Your task to perform on an android device: Open the phone app and click the voicemail tab. Image 0: 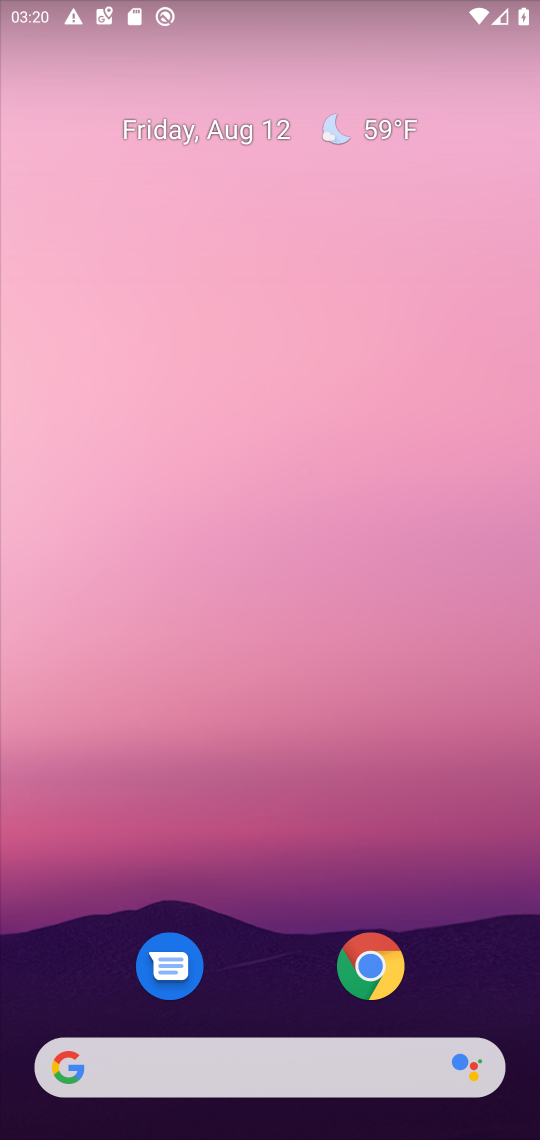
Step 0: drag from (265, 854) to (321, 214)
Your task to perform on an android device: Open the phone app and click the voicemail tab. Image 1: 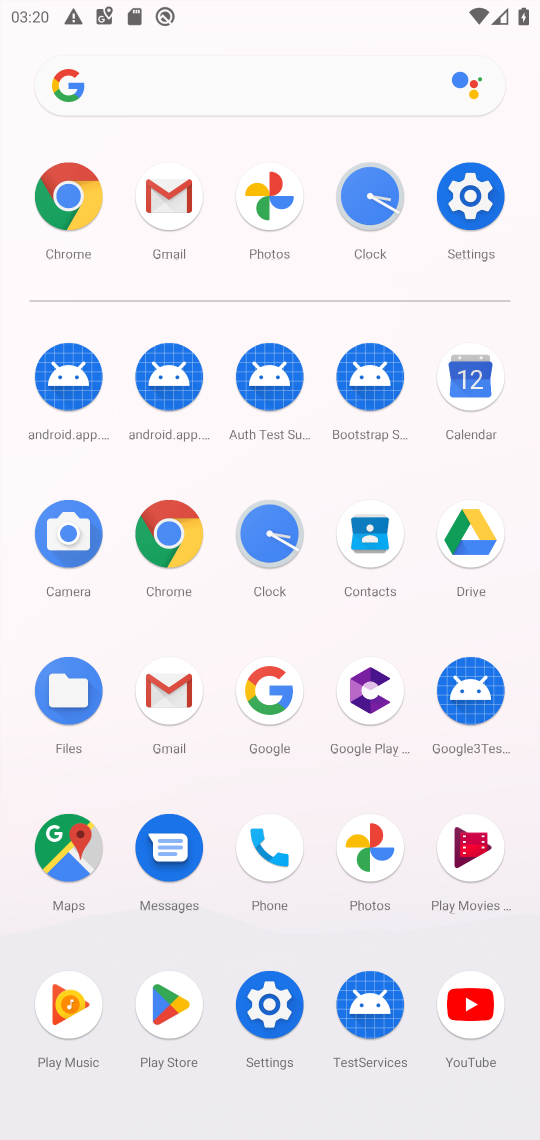
Step 1: click (269, 849)
Your task to perform on an android device: Open the phone app and click the voicemail tab. Image 2: 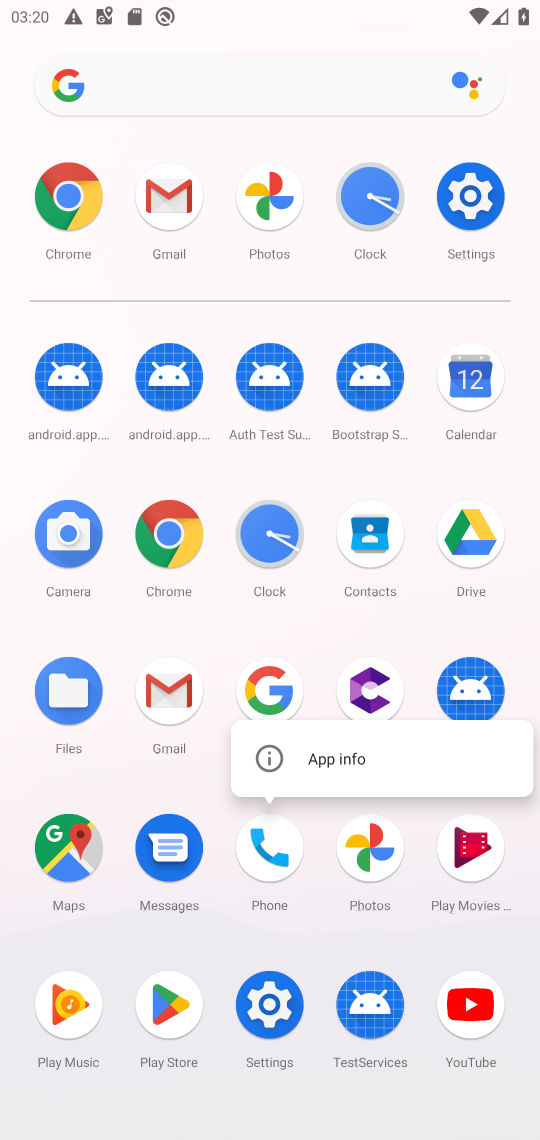
Step 2: click (210, 836)
Your task to perform on an android device: Open the phone app and click the voicemail tab. Image 3: 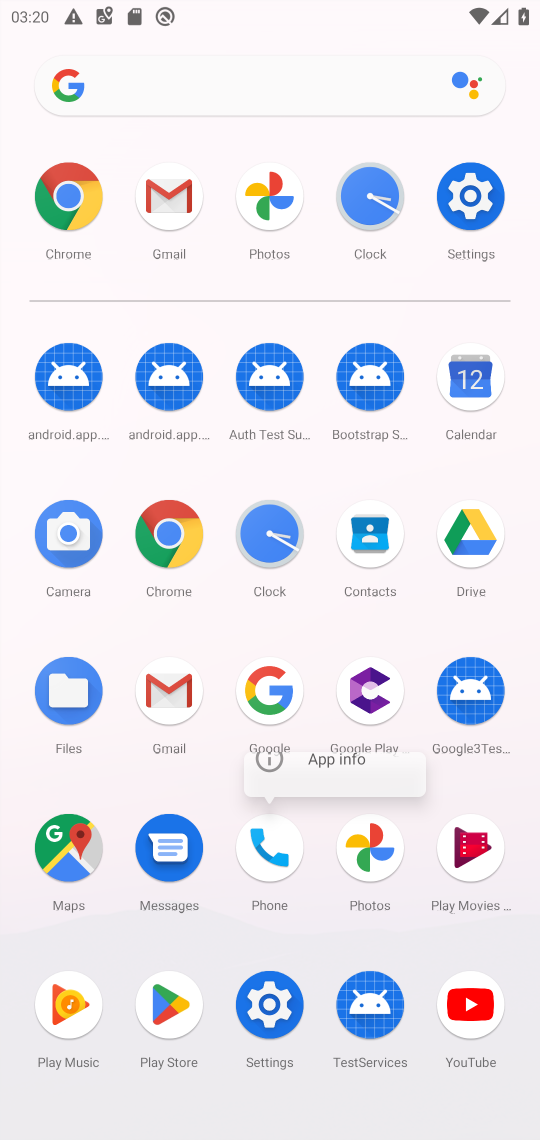
Step 3: click (264, 838)
Your task to perform on an android device: Open the phone app and click the voicemail tab. Image 4: 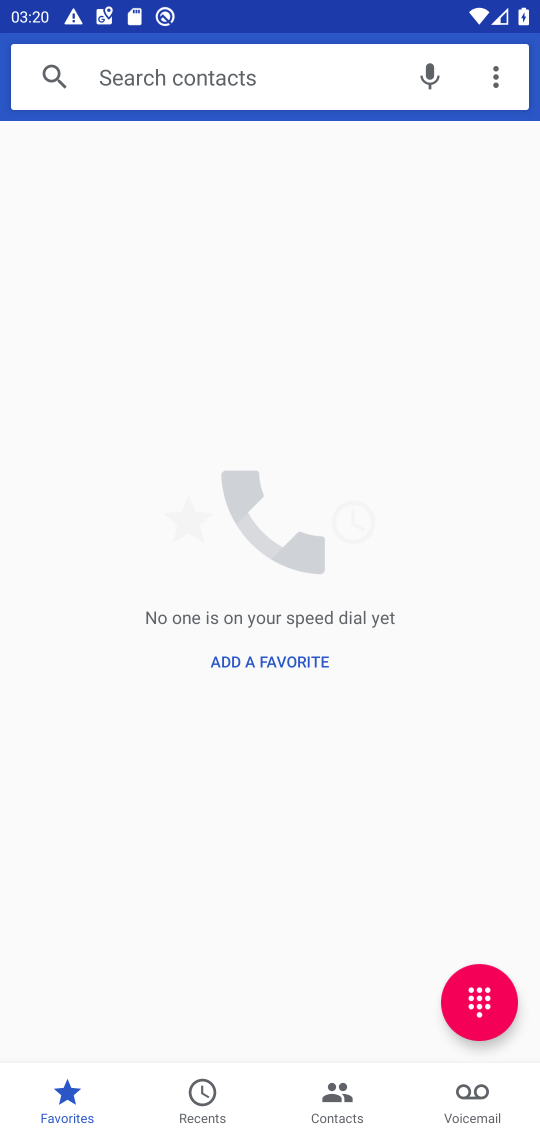
Step 4: click (469, 1105)
Your task to perform on an android device: Open the phone app and click the voicemail tab. Image 5: 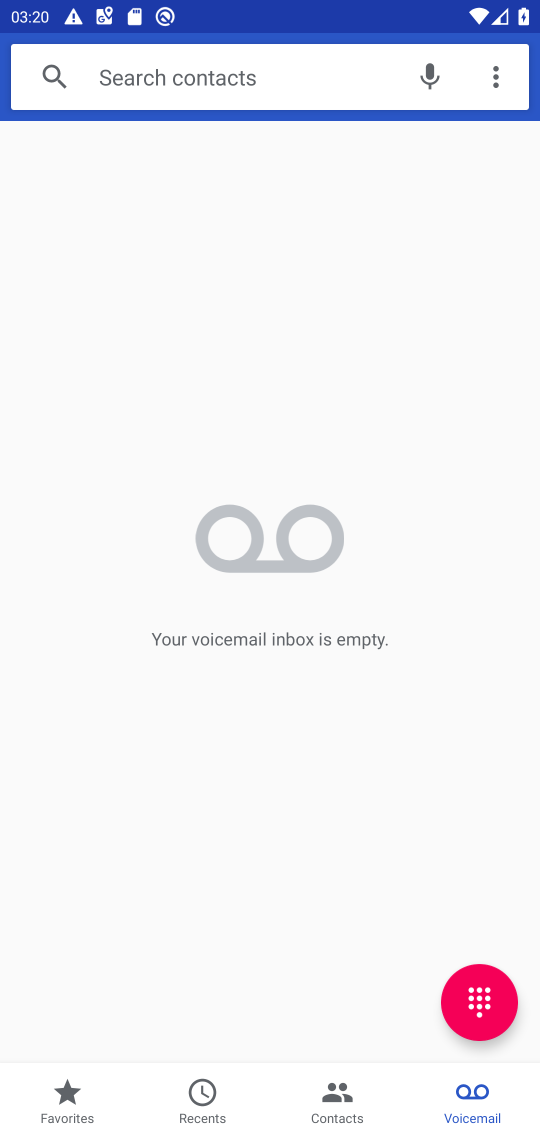
Step 5: task complete